Your task to perform on an android device: turn on sleep mode Image 0: 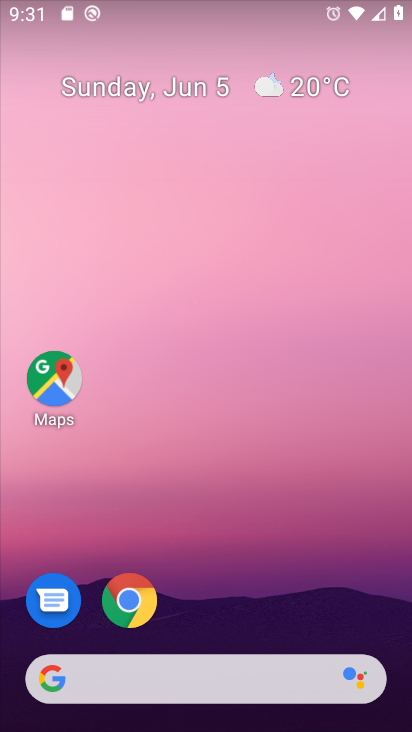
Step 0: drag from (293, 598) to (295, 17)
Your task to perform on an android device: turn on sleep mode Image 1: 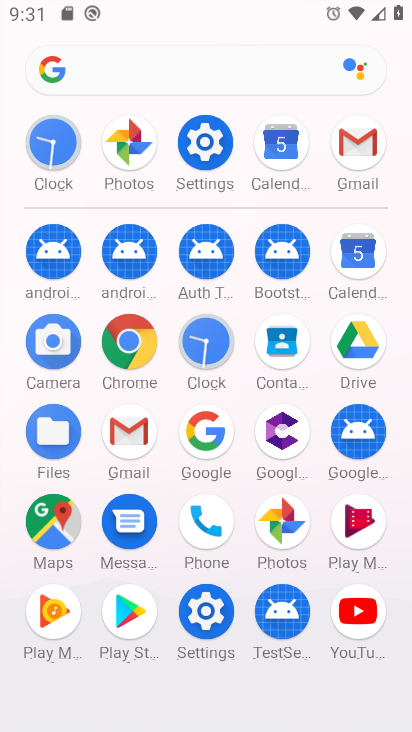
Step 1: click (199, 134)
Your task to perform on an android device: turn on sleep mode Image 2: 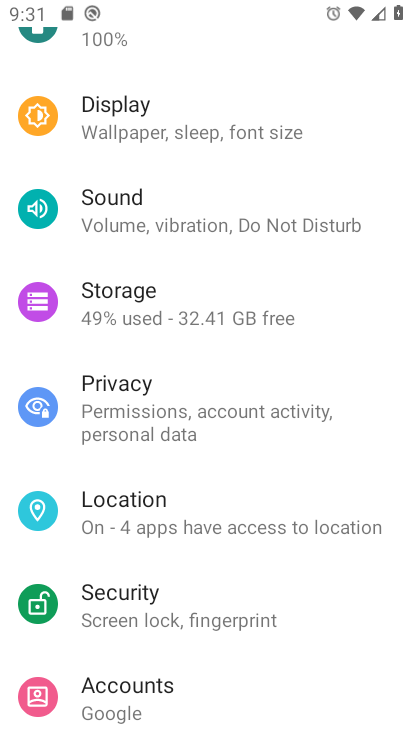
Step 2: click (222, 130)
Your task to perform on an android device: turn on sleep mode Image 3: 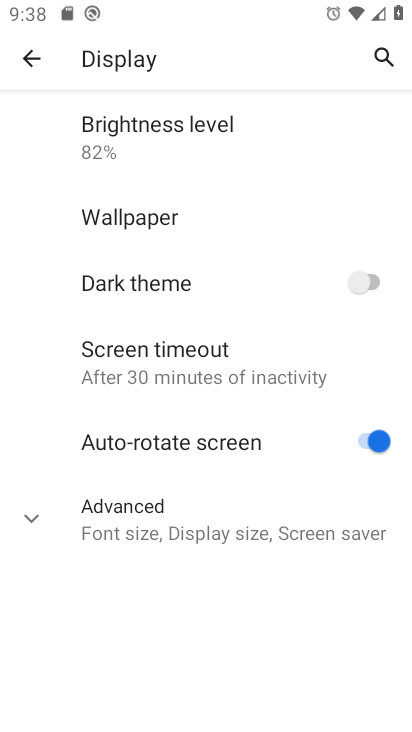
Step 3: task complete